Your task to perform on an android device: open chrome and create a bookmark for the current page Image 0: 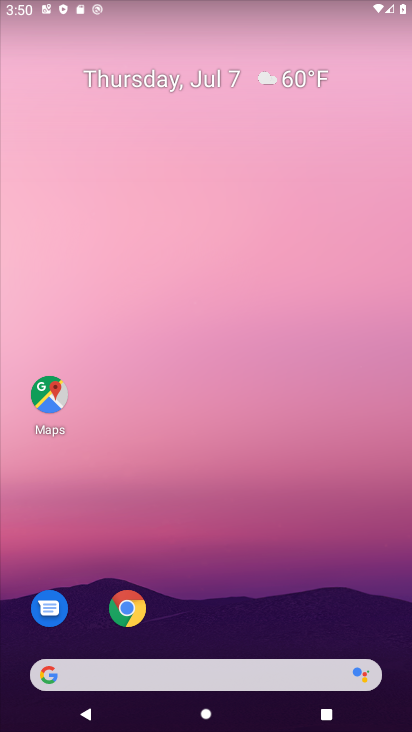
Step 0: click (146, 608)
Your task to perform on an android device: open chrome and create a bookmark for the current page Image 1: 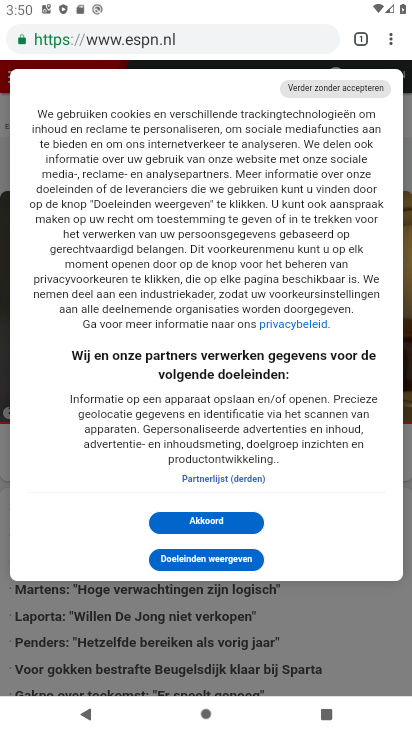
Step 1: task complete